Your task to perform on an android device: Clear all items from cart on amazon.com. Add macbook pro 13 inch to the cart on amazon.com Image 0: 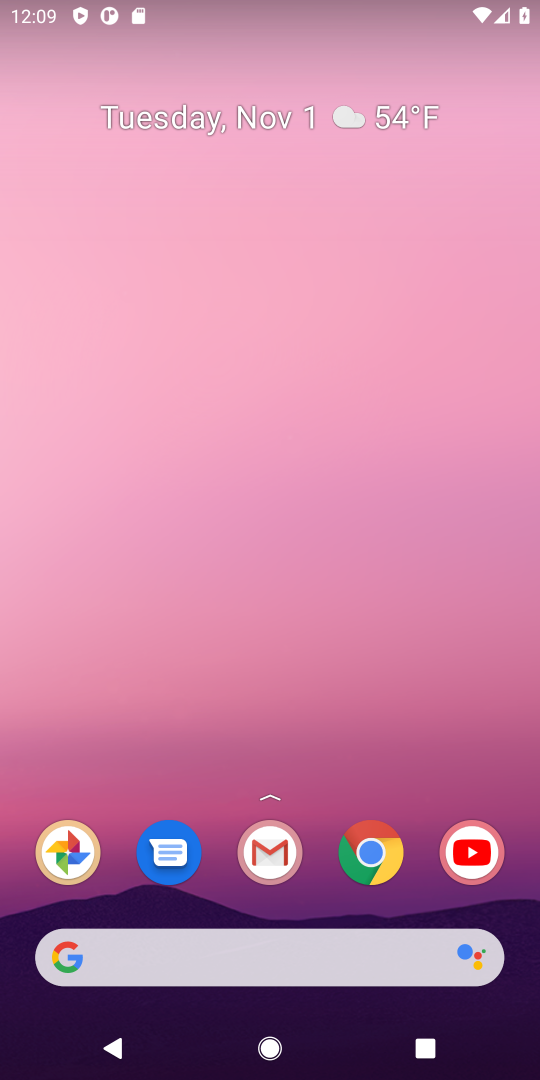
Step 0: click (361, 870)
Your task to perform on an android device: Clear all items from cart on amazon.com. Add macbook pro 13 inch to the cart on amazon.com Image 1: 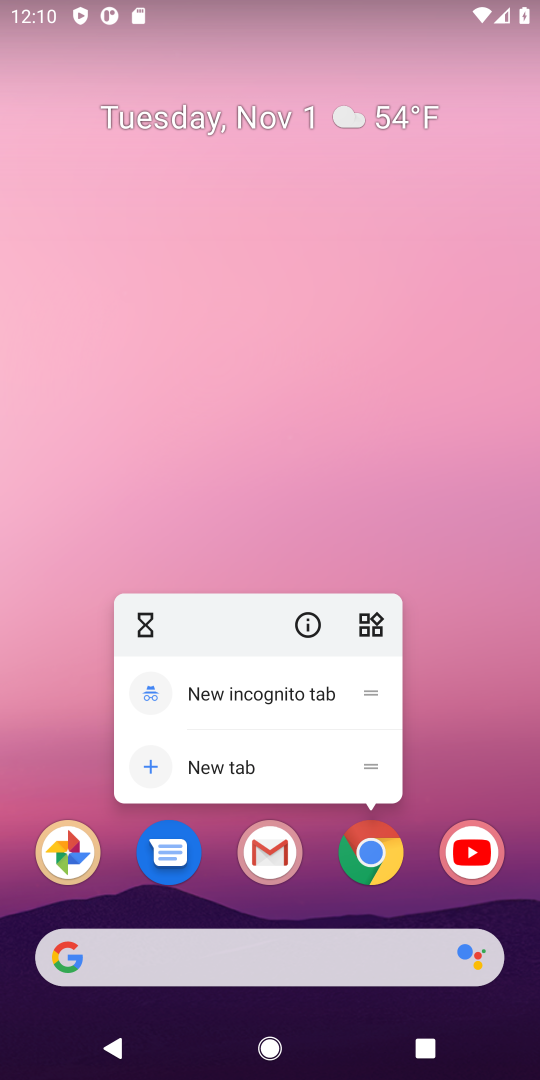
Step 1: click (381, 868)
Your task to perform on an android device: Clear all items from cart on amazon.com. Add macbook pro 13 inch to the cart on amazon.com Image 2: 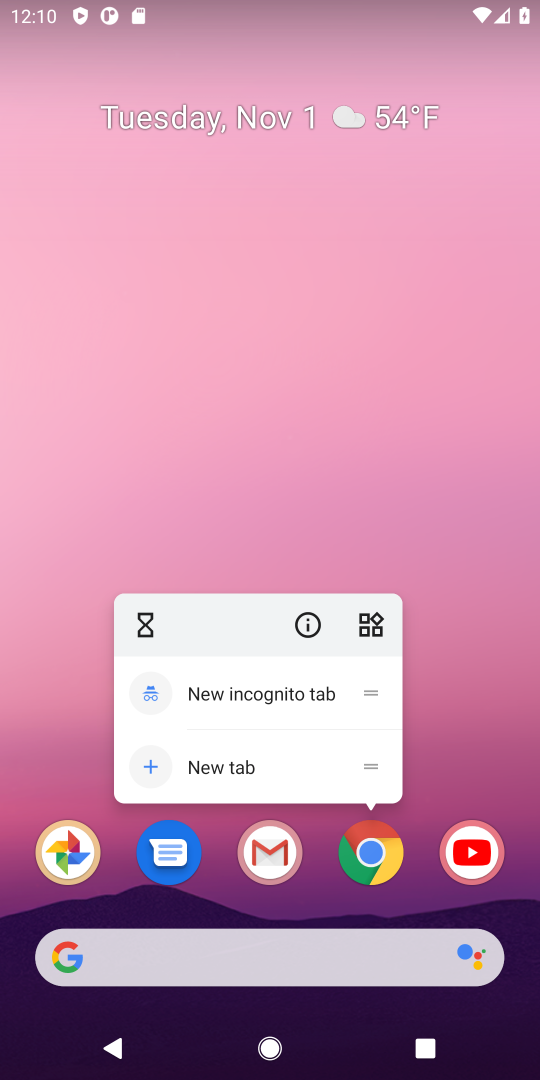
Step 2: click (374, 875)
Your task to perform on an android device: Clear all items from cart on amazon.com. Add macbook pro 13 inch to the cart on amazon.com Image 3: 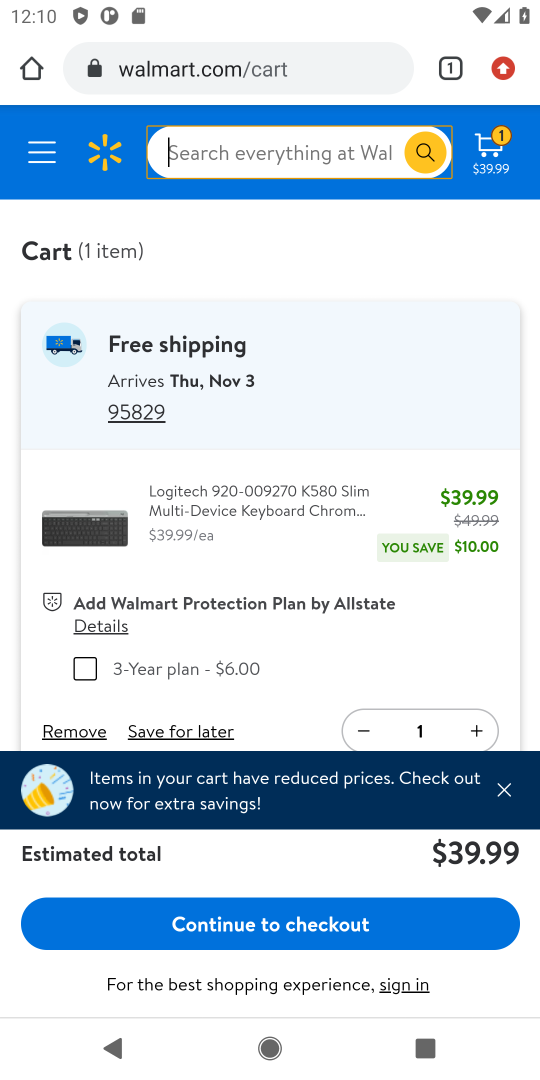
Step 3: click (254, 78)
Your task to perform on an android device: Clear all items from cart on amazon.com. Add macbook pro 13 inch to the cart on amazon.com Image 4: 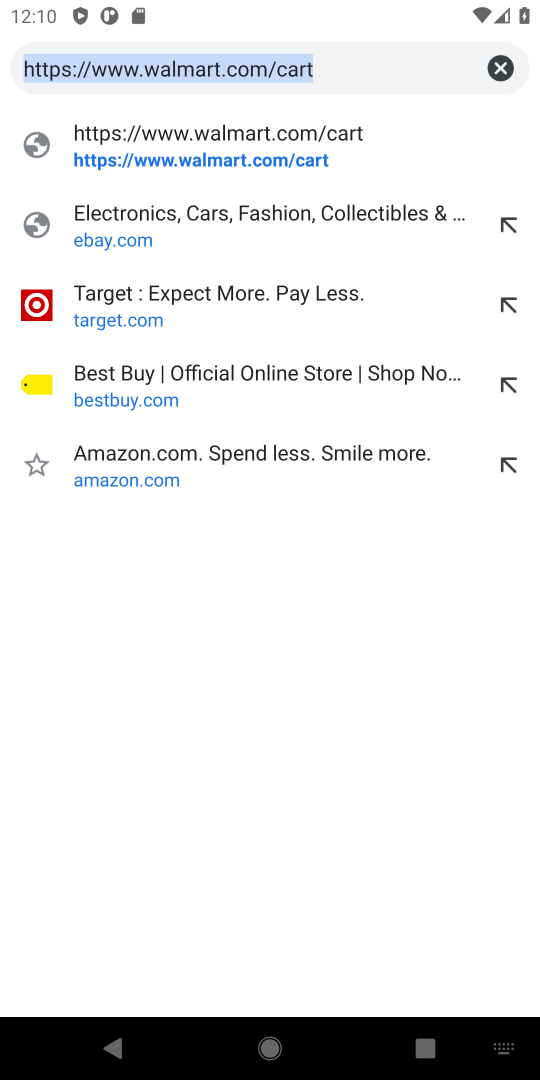
Step 4: type "amazon.com"
Your task to perform on an android device: Clear all items from cart on amazon.com. Add macbook pro 13 inch to the cart on amazon.com Image 5: 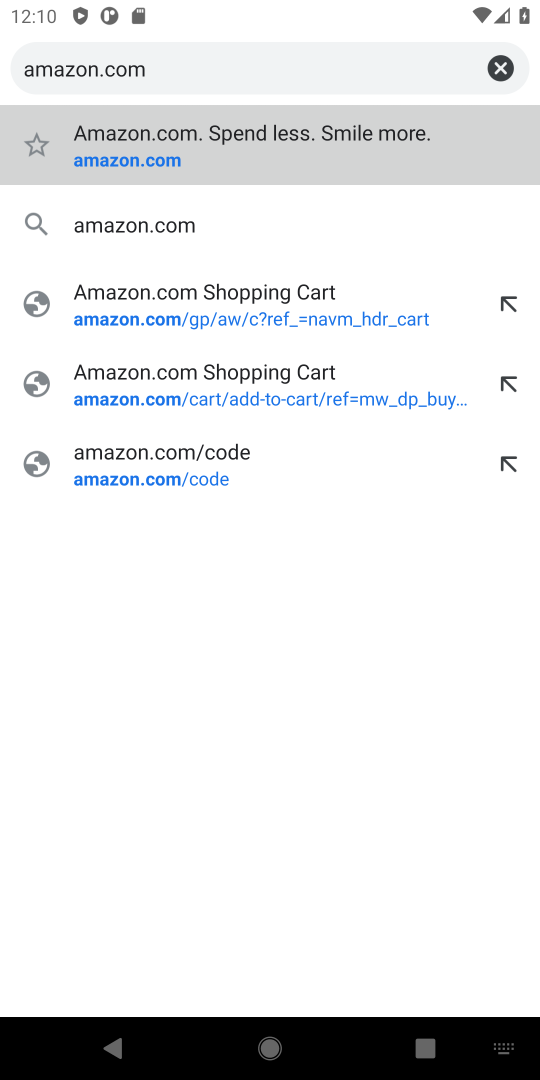
Step 5: type ""
Your task to perform on an android device: Clear all items from cart on amazon.com. Add macbook pro 13 inch to the cart on amazon.com Image 6: 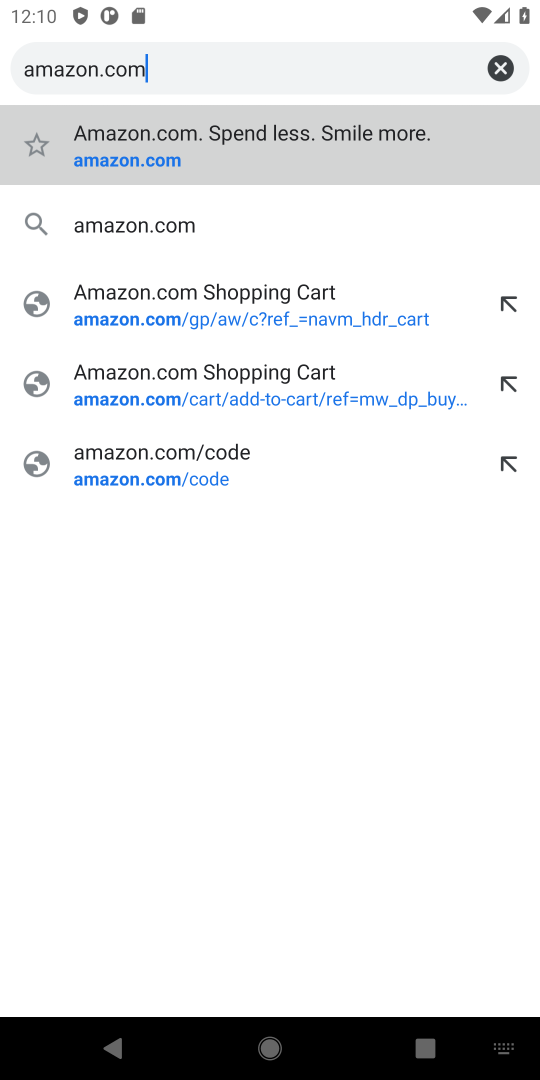
Step 6: press enter
Your task to perform on an android device: Clear all items from cart on amazon.com. Add macbook pro 13 inch to the cart on amazon.com Image 7: 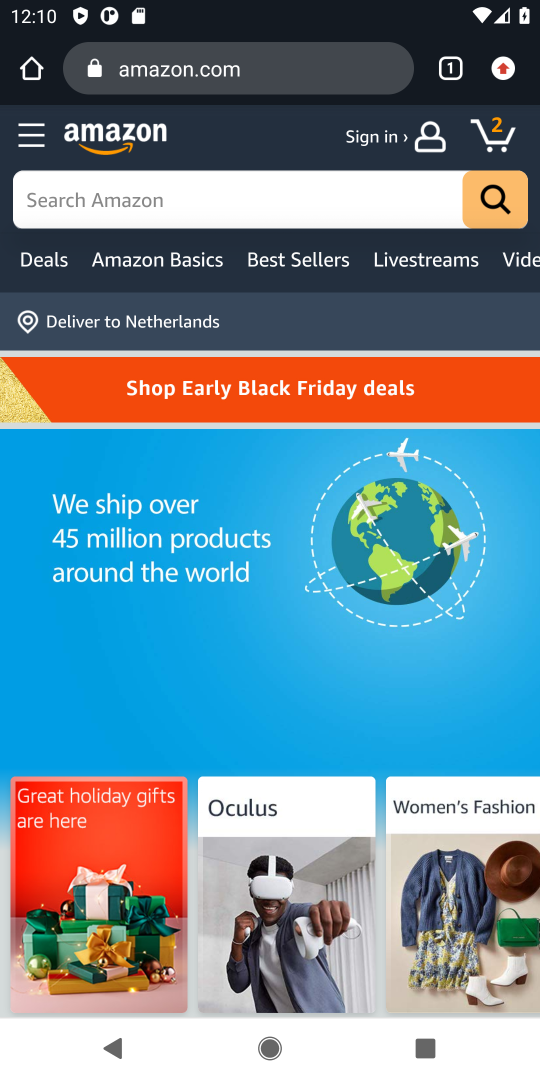
Step 7: click (496, 125)
Your task to perform on an android device: Clear all items from cart on amazon.com. Add macbook pro 13 inch to the cart on amazon.com Image 8: 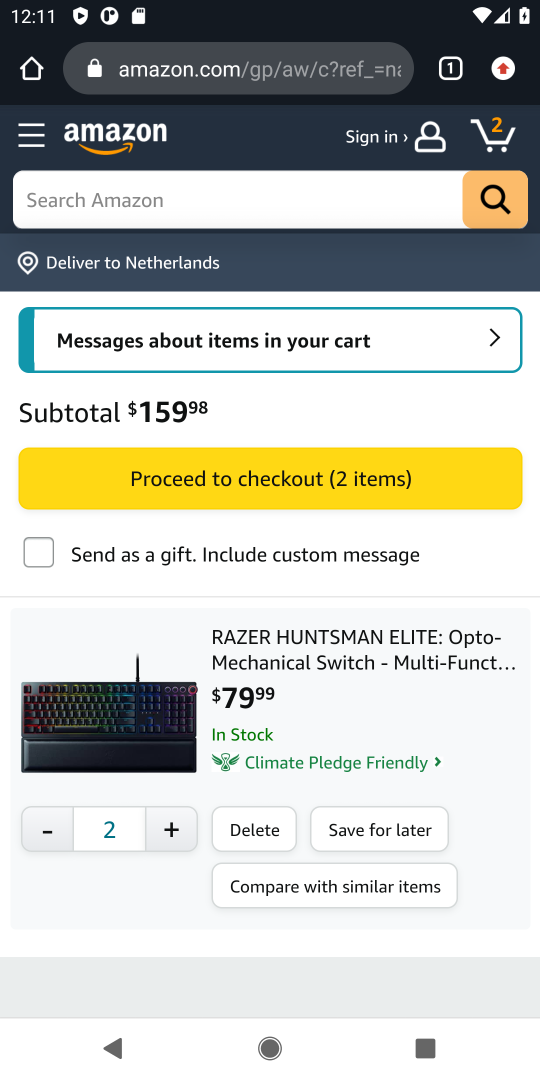
Step 8: click (232, 832)
Your task to perform on an android device: Clear all items from cart on amazon.com. Add macbook pro 13 inch to the cart on amazon.com Image 9: 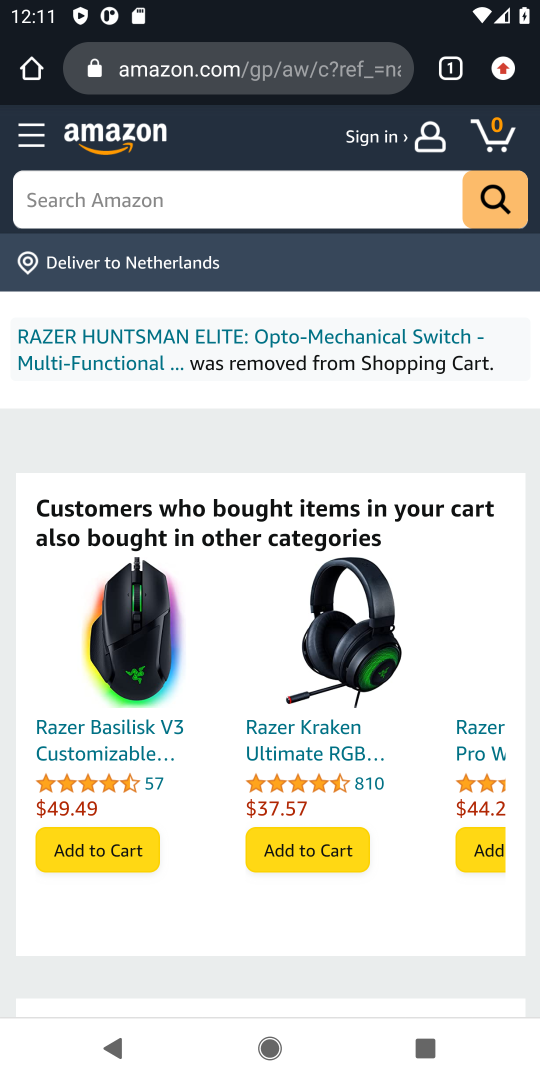
Step 9: click (290, 214)
Your task to perform on an android device: Clear all items from cart on amazon.com. Add macbook pro 13 inch to the cart on amazon.com Image 10: 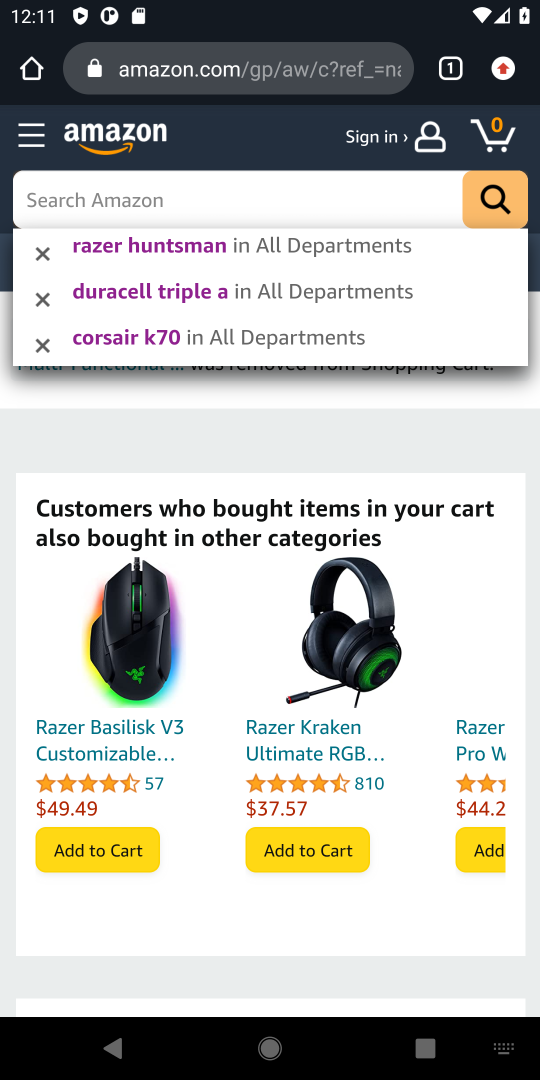
Step 10: type "macbook pro 13 inch"
Your task to perform on an android device: Clear all items from cart on amazon.com. Add macbook pro 13 inch to the cart on amazon.com Image 11: 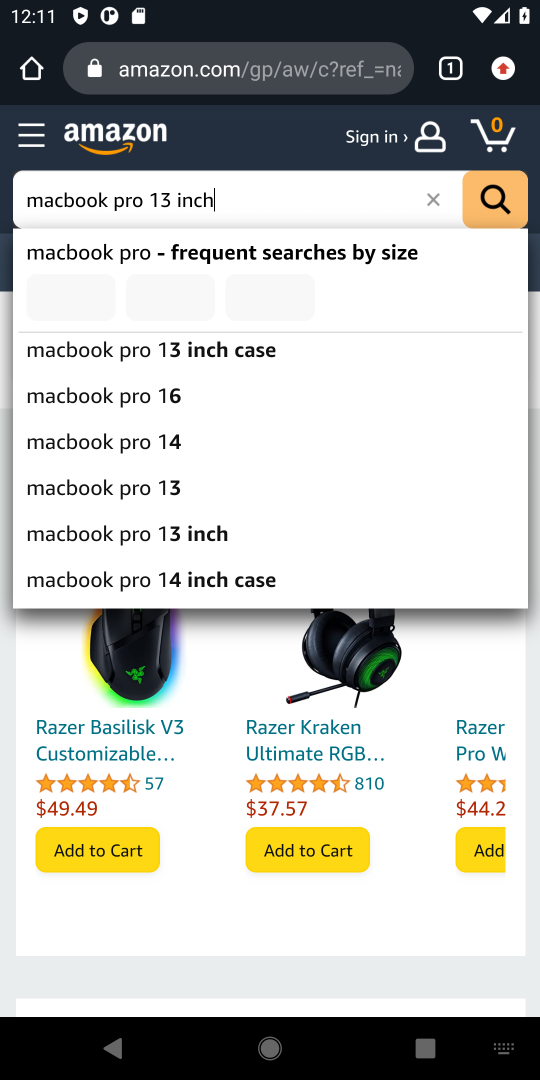
Step 11: type ""
Your task to perform on an android device: Clear all items from cart on amazon.com. Add macbook pro 13 inch to the cart on amazon.com Image 12: 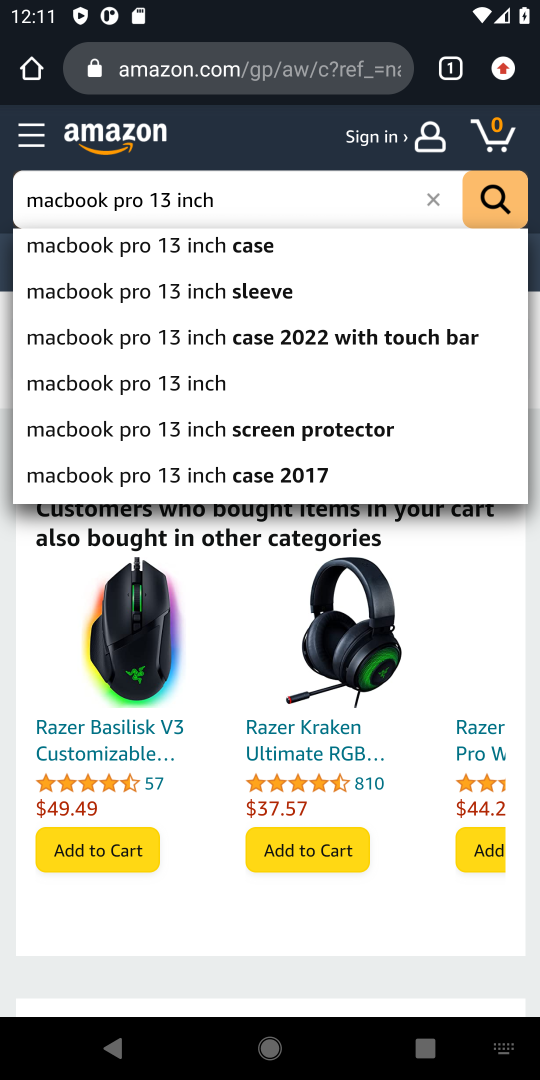
Step 12: press enter
Your task to perform on an android device: Clear all items from cart on amazon.com. Add macbook pro 13 inch to the cart on amazon.com Image 13: 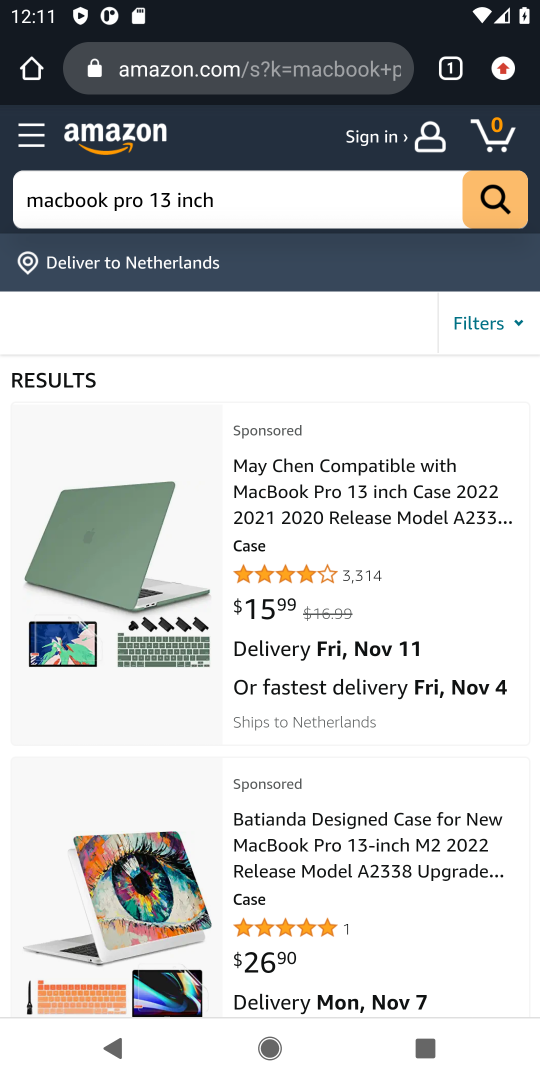
Step 13: drag from (343, 772) to (345, 694)
Your task to perform on an android device: Clear all items from cart on amazon.com. Add macbook pro 13 inch to the cart on amazon.com Image 14: 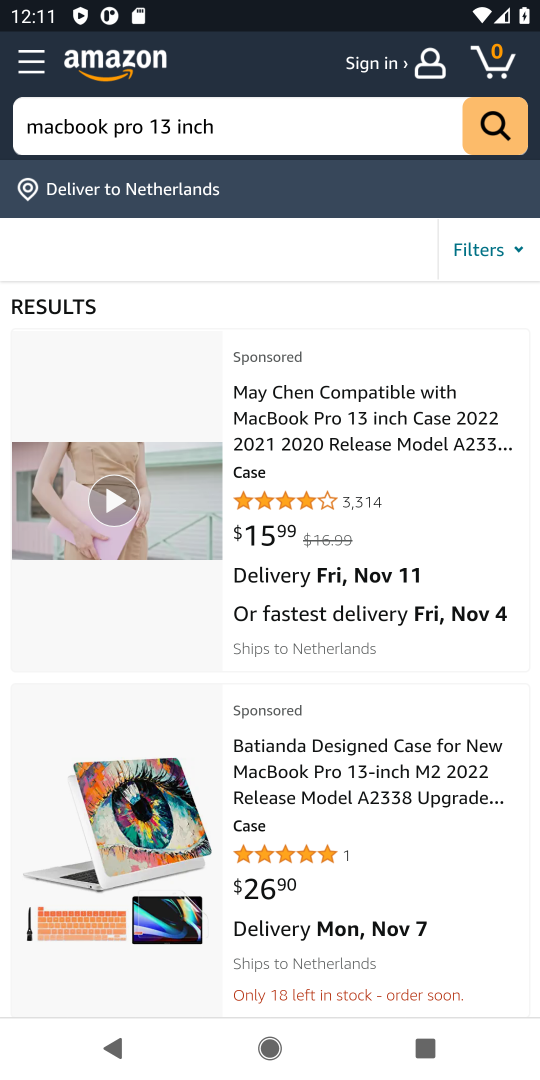
Step 14: drag from (478, 734) to (467, 478)
Your task to perform on an android device: Clear all items from cart on amazon.com. Add macbook pro 13 inch to the cart on amazon.com Image 15: 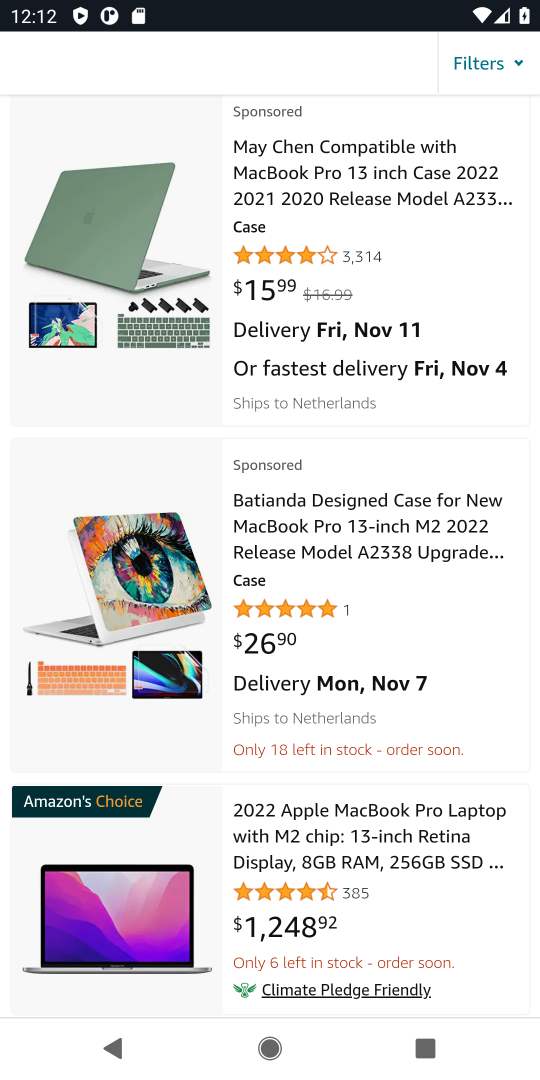
Step 15: click (405, 849)
Your task to perform on an android device: Clear all items from cart on amazon.com. Add macbook pro 13 inch to the cart on amazon.com Image 16: 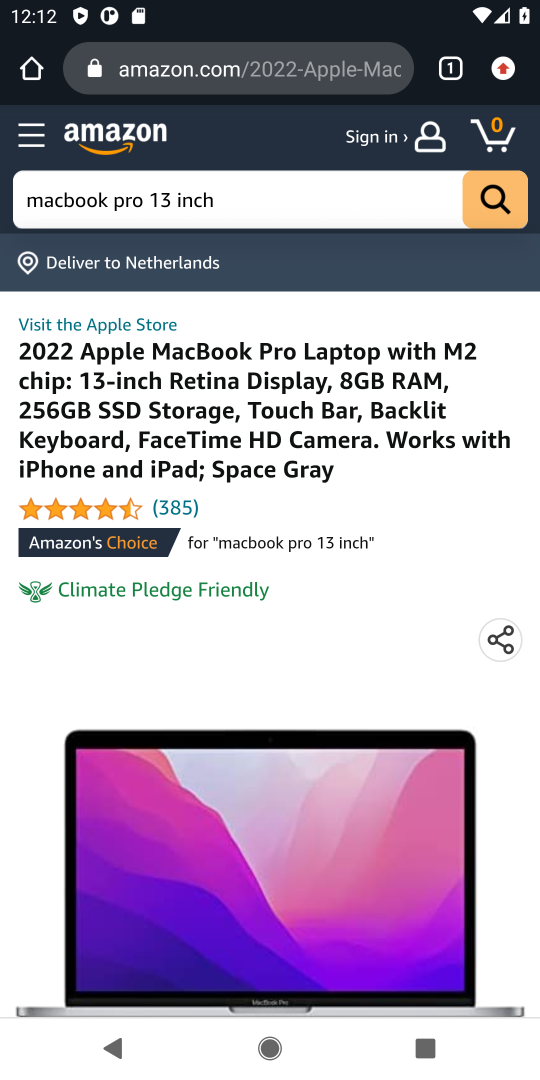
Step 16: drag from (288, 851) to (238, 28)
Your task to perform on an android device: Clear all items from cart on amazon.com. Add macbook pro 13 inch to the cart on amazon.com Image 17: 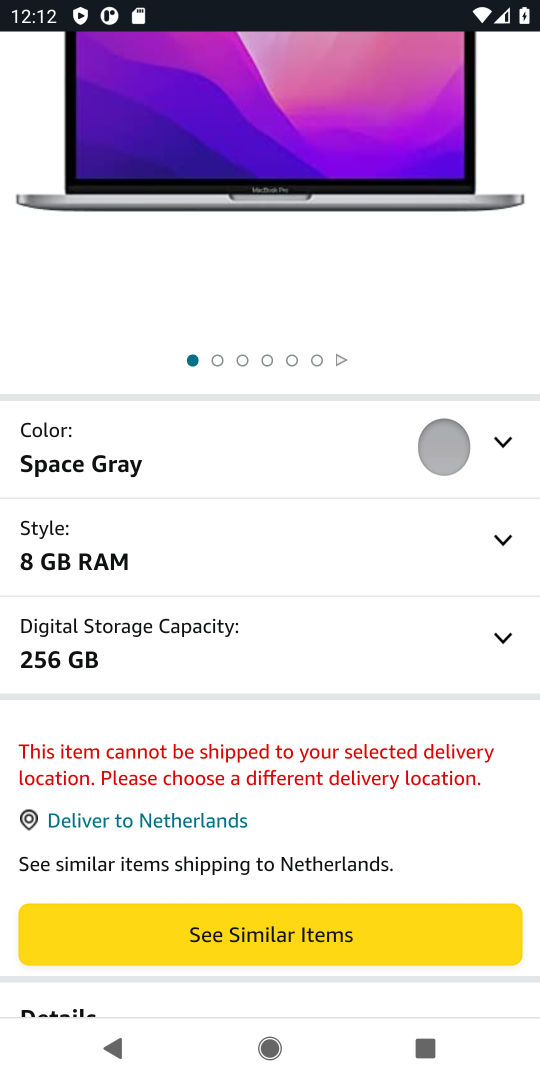
Step 17: click (363, 943)
Your task to perform on an android device: Clear all items from cart on amazon.com. Add macbook pro 13 inch to the cart on amazon.com Image 18: 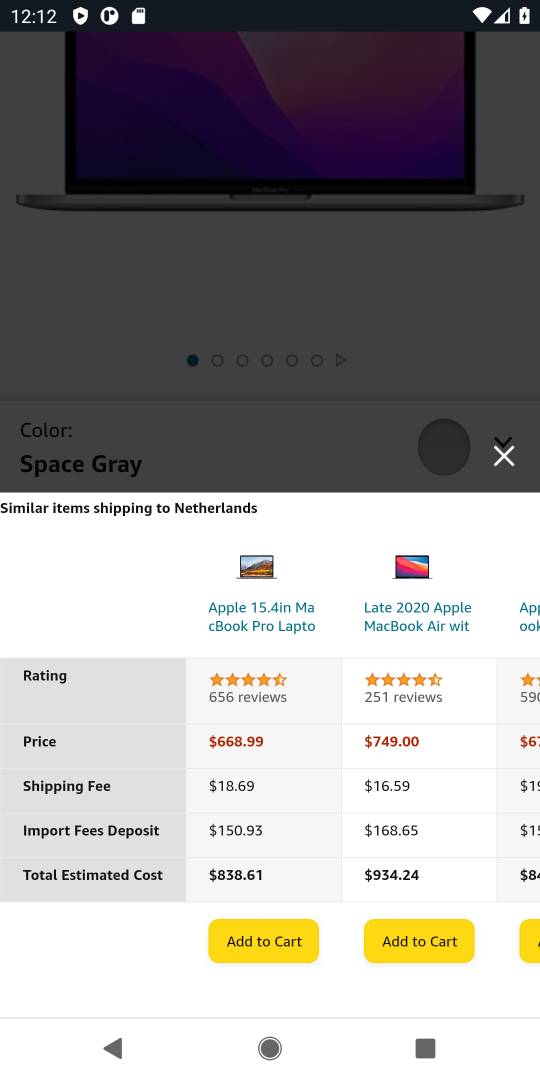
Step 18: drag from (361, 809) to (29, 786)
Your task to perform on an android device: Clear all items from cart on amazon.com. Add macbook pro 13 inch to the cart on amazon.com Image 19: 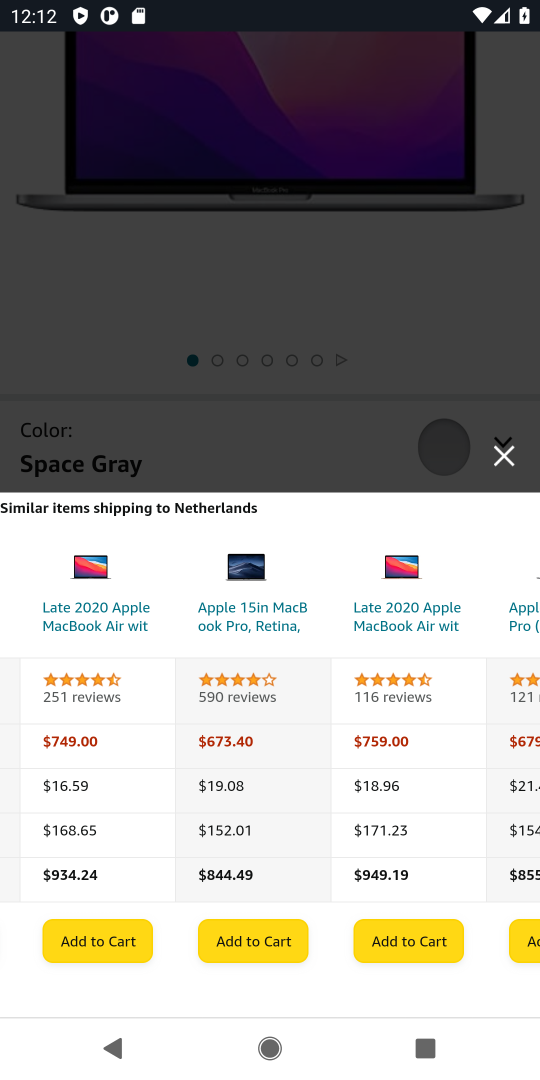
Step 19: drag from (427, 776) to (194, 761)
Your task to perform on an android device: Clear all items from cart on amazon.com. Add macbook pro 13 inch to the cart on amazon.com Image 20: 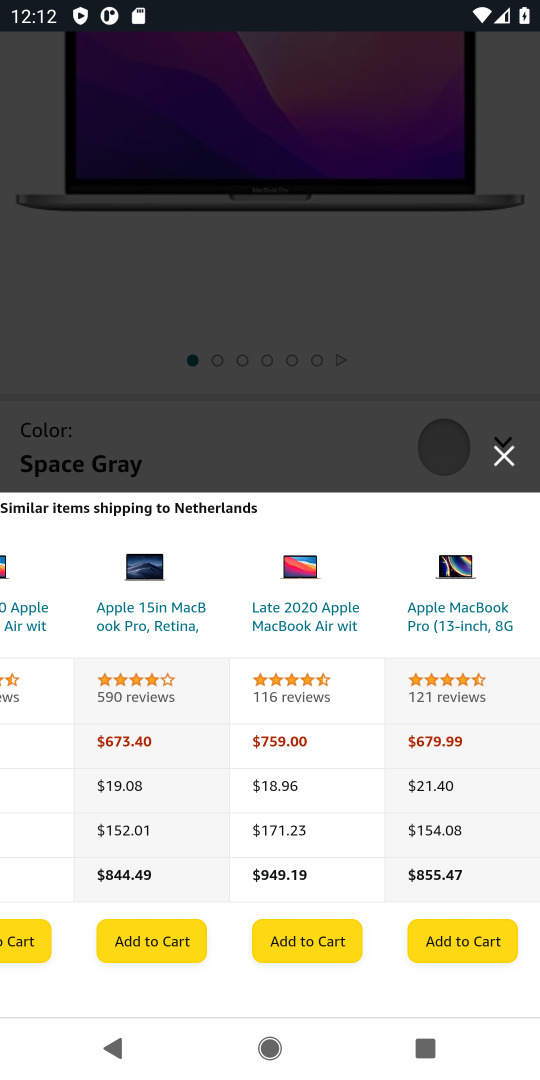
Step 20: click (437, 948)
Your task to perform on an android device: Clear all items from cart on amazon.com. Add macbook pro 13 inch to the cart on amazon.com Image 21: 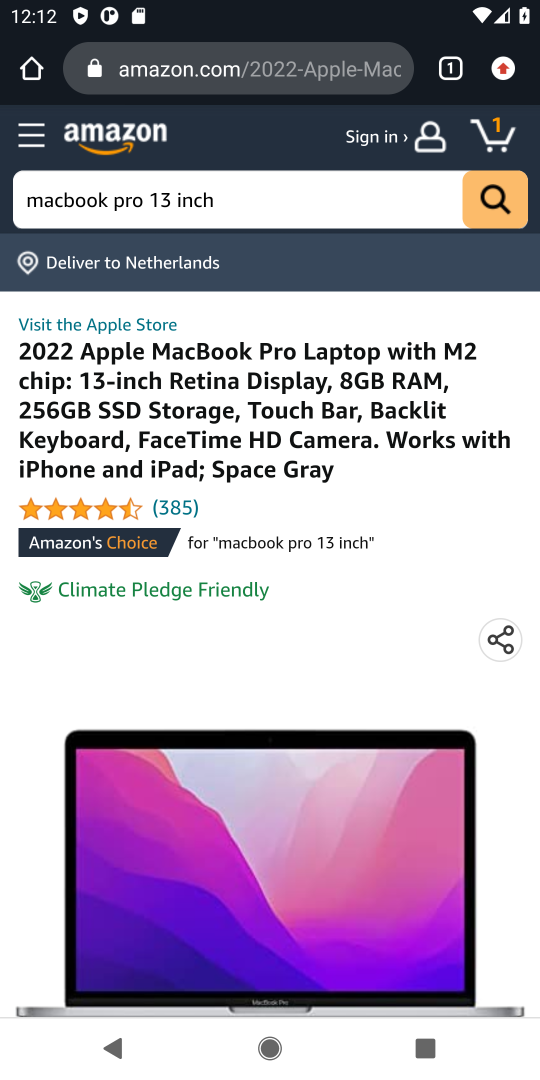
Step 21: click (487, 141)
Your task to perform on an android device: Clear all items from cart on amazon.com. Add macbook pro 13 inch to the cart on amazon.com Image 22: 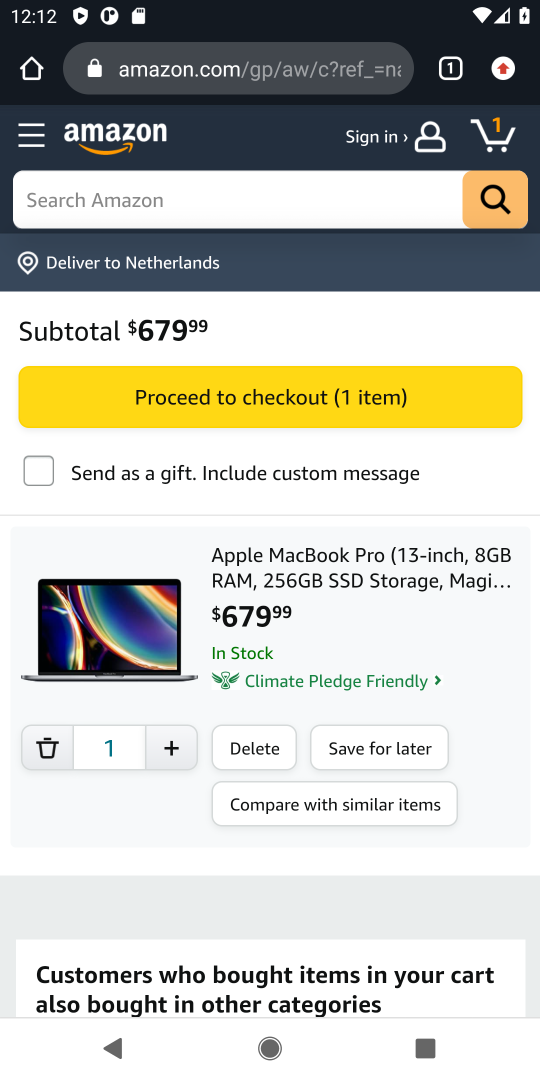
Step 22: task complete